Your task to perform on an android device: open a bookmark in the chrome app Image 0: 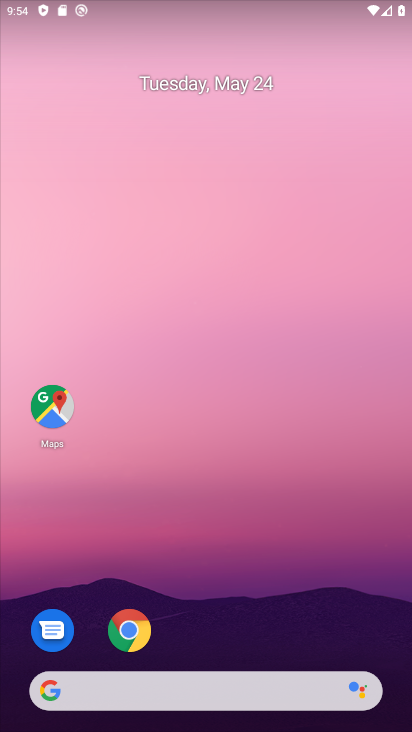
Step 0: click (123, 624)
Your task to perform on an android device: open a bookmark in the chrome app Image 1: 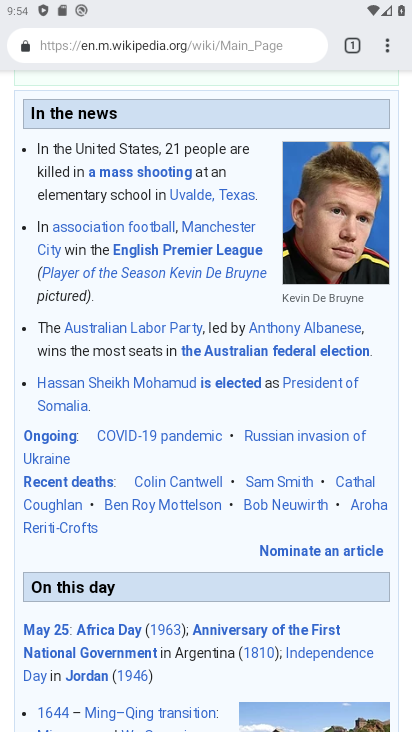
Step 1: click (386, 45)
Your task to perform on an android device: open a bookmark in the chrome app Image 2: 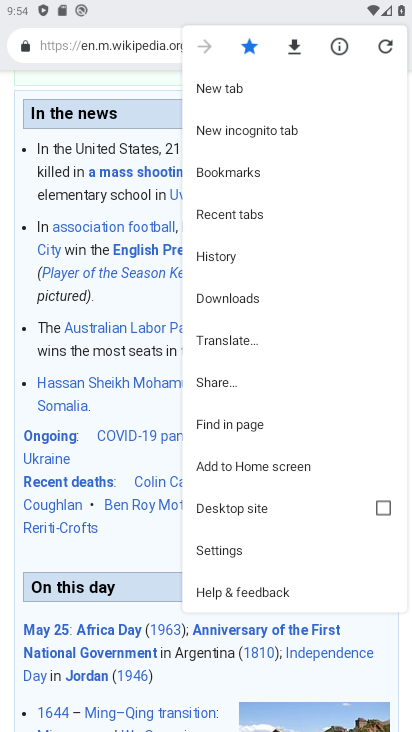
Step 2: click (264, 169)
Your task to perform on an android device: open a bookmark in the chrome app Image 3: 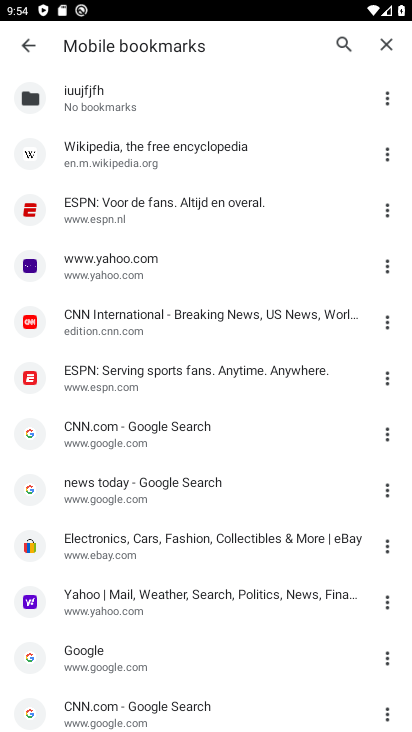
Step 3: click (127, 492)
Your task to perform on an android device: open a bookmark in the chrome app Image 4: 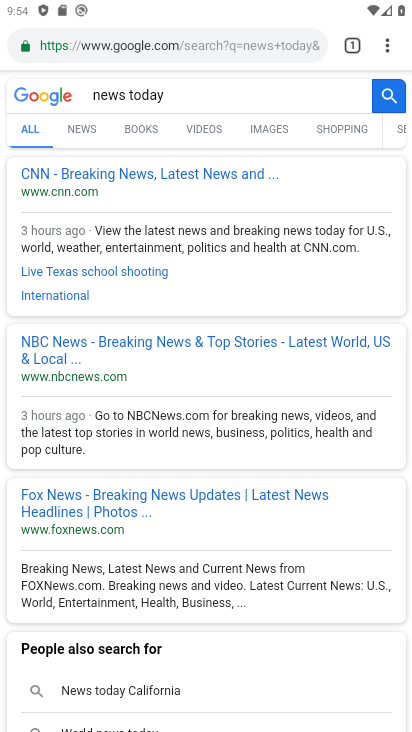
Step 4: task complete